Your task to perform on an android device: Open Google Maps Image 0: 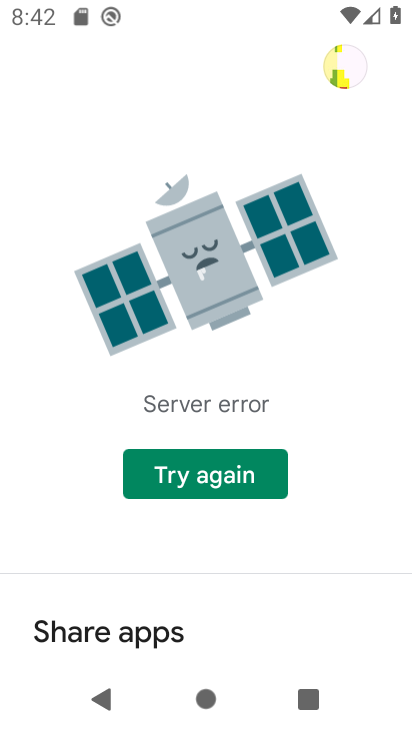
Step 0: press home button
Your task to perform on an android device: Open Google Maps Image 1: 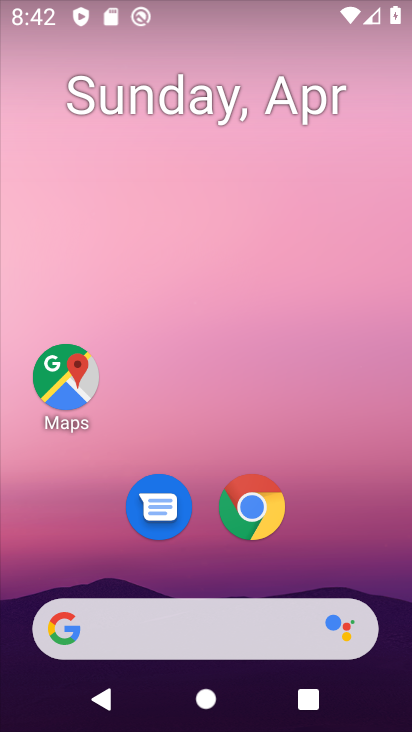
Step 1: click (64, 403)
Your task to perform on an android device: Open Google Maps Image 2: 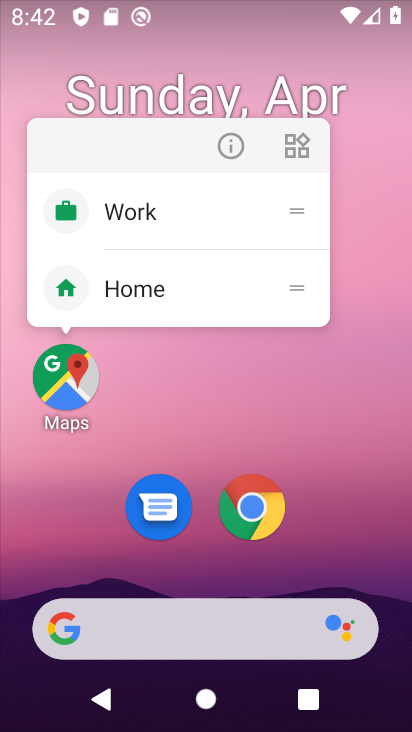
Step 2: click (62, 404)
Your task to perform on an android device: Open Google Maps Image 3: 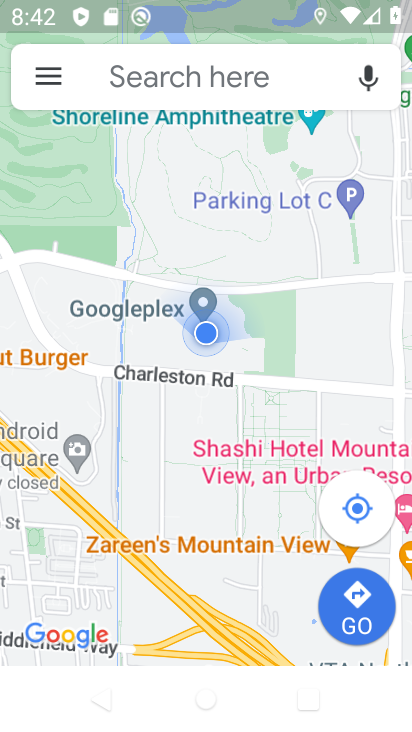
Step 3: task complete